Your task to perform on an android device: turn on location history Image 0: 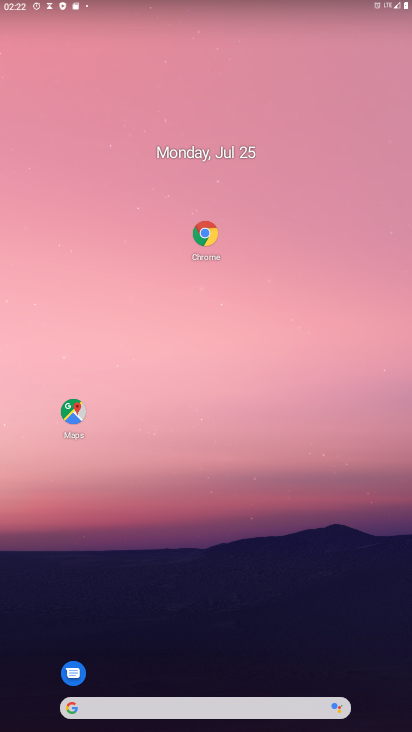
Step 0: drag from (201, 661) to (291, 98)
Your task to perform on an android device: turn on location history Image 1: 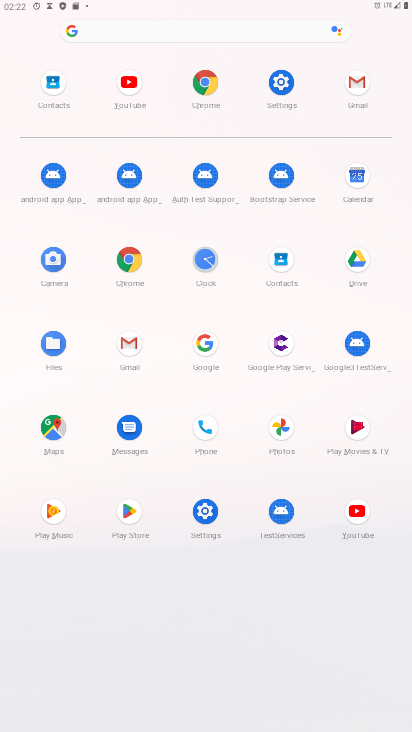
Step 1: click (277, 81)
Your task to perform on an android device: turn on location history Image 2: 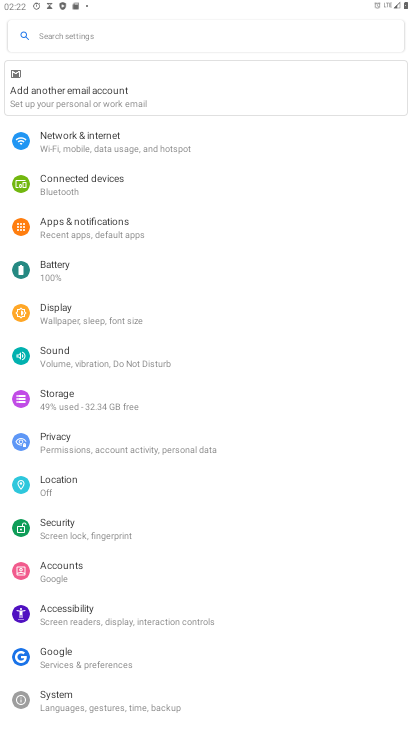
Step 2: click (95, 484)
Your task to perform on an android device: turn on location history Image 3: 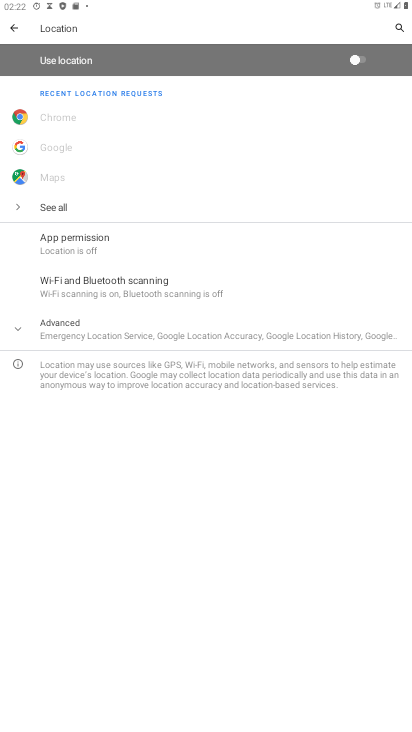
Step 3: click (146, 326)
Your task to perform on an android device: turn on location history Image 4: 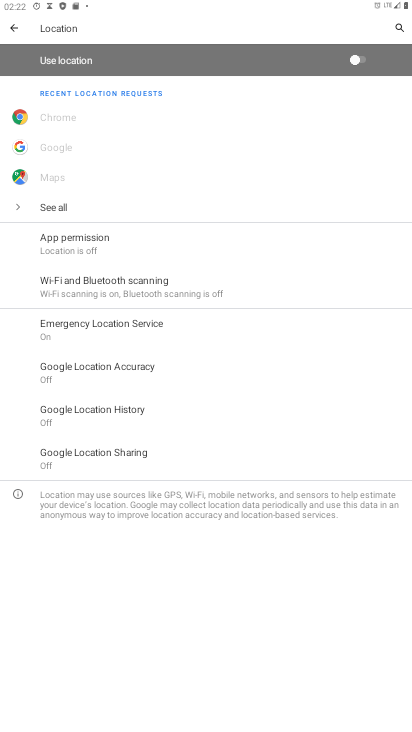
Step 4: click (121, 413)
Your task to perform on an android device: turn on location history Image 5: 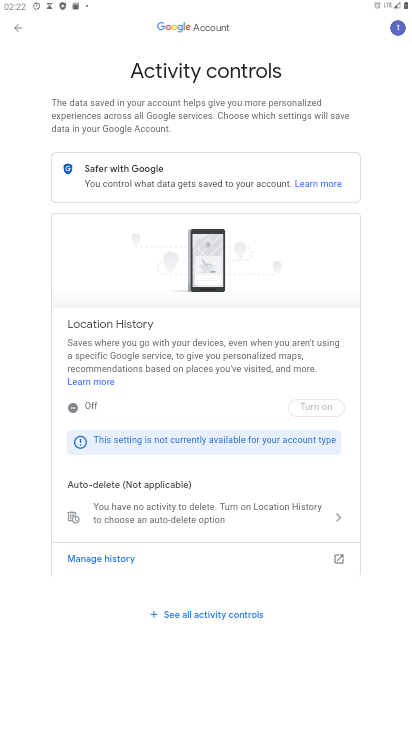
Step 5: click (241, 614)
Your task to perform on an android device: turn on location history Image 6: 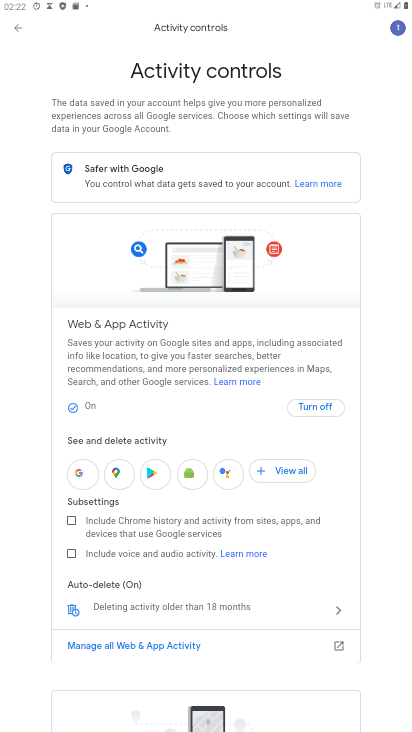
Step 6: task complete